Your task to perform on an android device: turn on improve location accuracy Image 0: 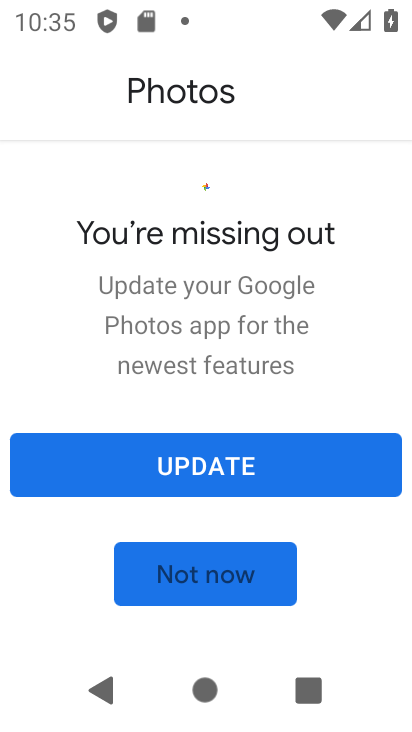
Step 0: press home button
Your task to perform on an android device: turn on improve location accuracy Image 1: 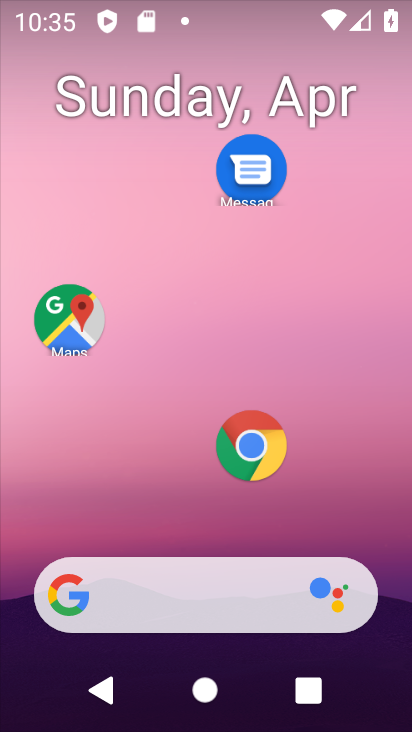
Step 1: drag from (236, 545) to (356, 66)
Your task to perform on an android device: turn on improve location accuracy Image 2: 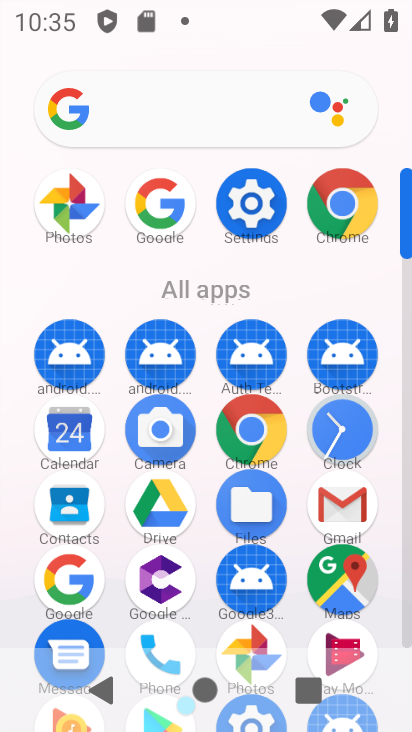
Step 2: click (248, 211)
Your task to perform on an android device: turn on improve location accuracy Image 3: 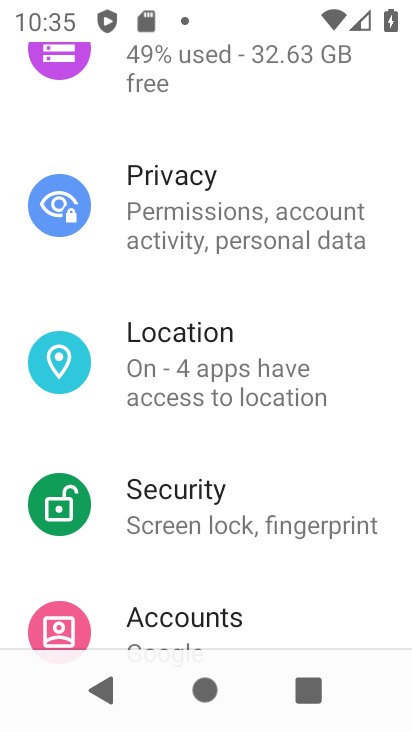
Step 3: click (196, 387)
Your task to perform on an android device: turn on improve location accuracy Image 4: 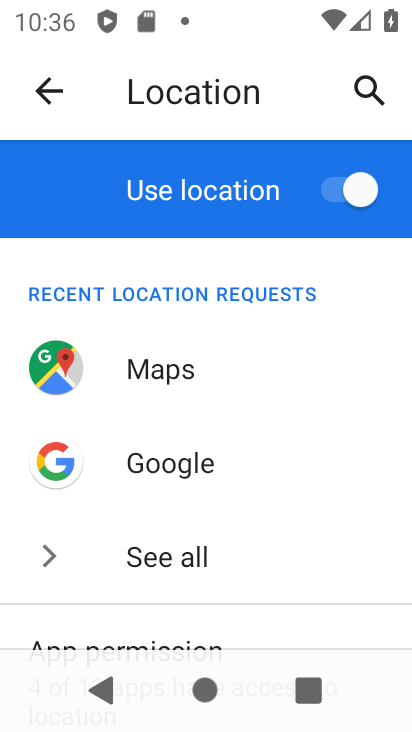
Step 4: drag from (154, 599) to (304, 191)
Your task to perform on an android device: turn on improve location accuracy Image 5: 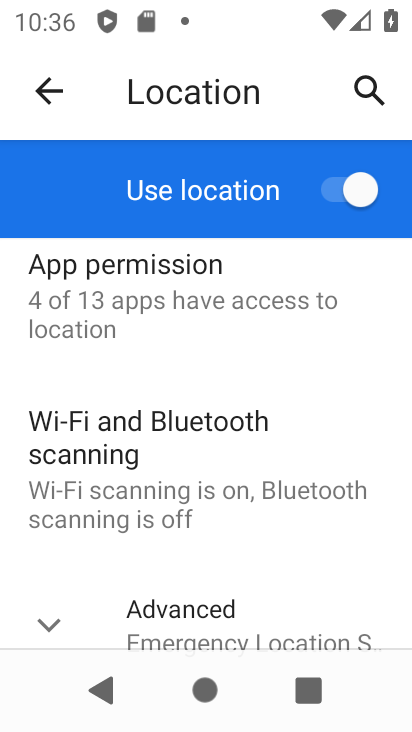
Step 5: click (203, 624)
Your task to perform on an android device: turn on improve location accuracy Image 6: 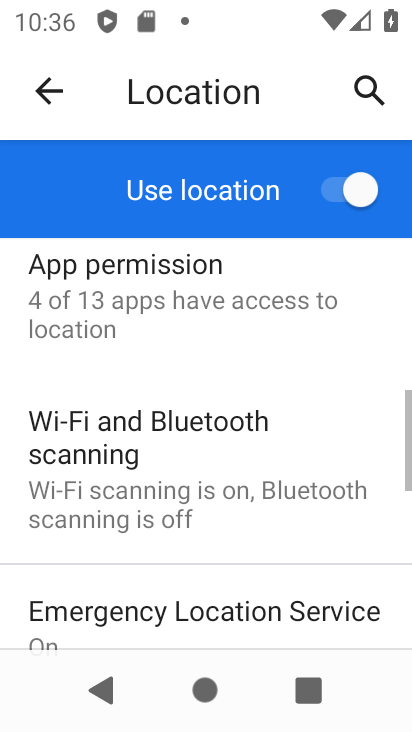
Step 6: drag from (199, 546) to (333, 117)
Your task to perform on an android device: turn on improve location accuracy Image 7: 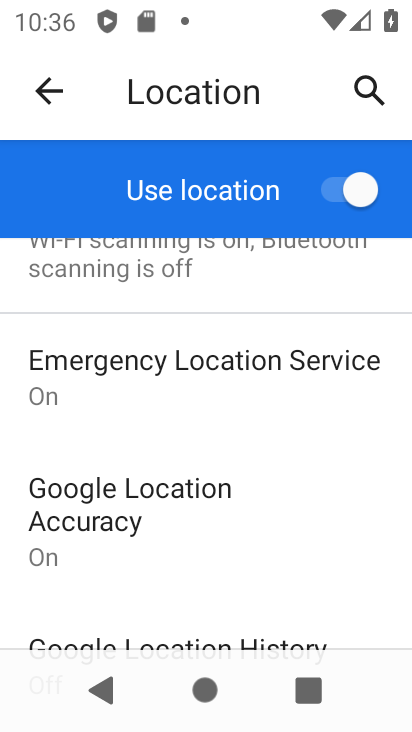
Step 7: click (146, 500)
Your task to perform on an android device: turn on improve location accuracy Image 8: 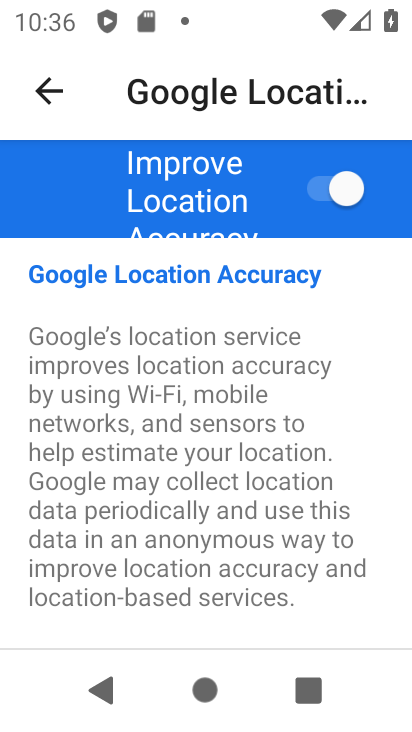
Step 8: task complete